Your task to perform on an android device: turn on bluetooth scan Image 0: 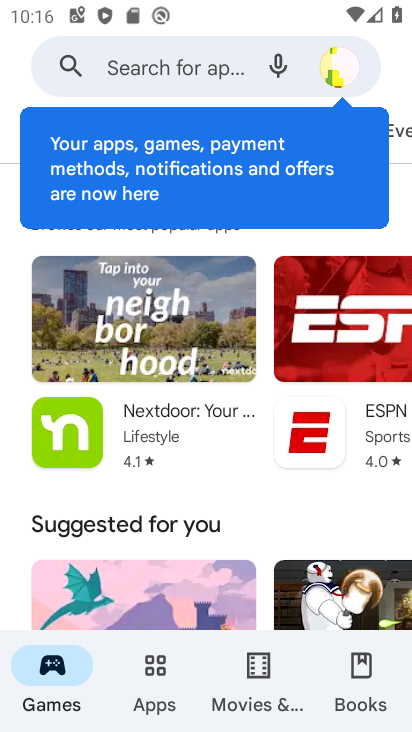
Step 0: press home button
Your task to perform on an android device: turn on bluetooth scan Image 1: 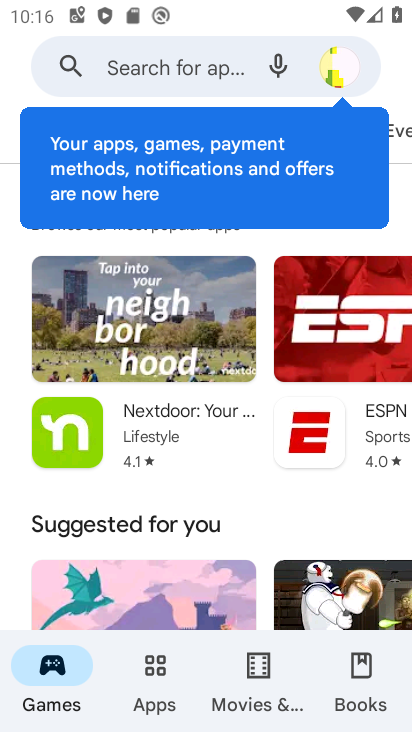
Step 1: press home button
Your task to perform on an android device: turn on bluetooth scan Image 2: 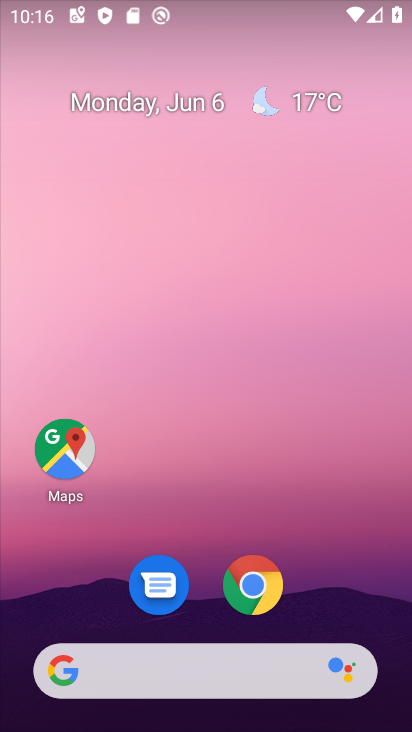
Step 2: drag from (213, 486) to (206, 135)
Your task to perform on an android device: turn on bluetooth scan Image 3: 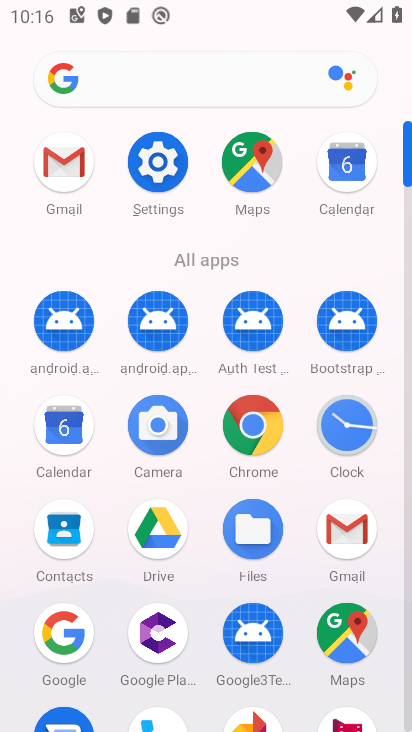
Step 3: click (154, 171)
Your task to perform on an android device: turn on bluetooth scan Image 4: 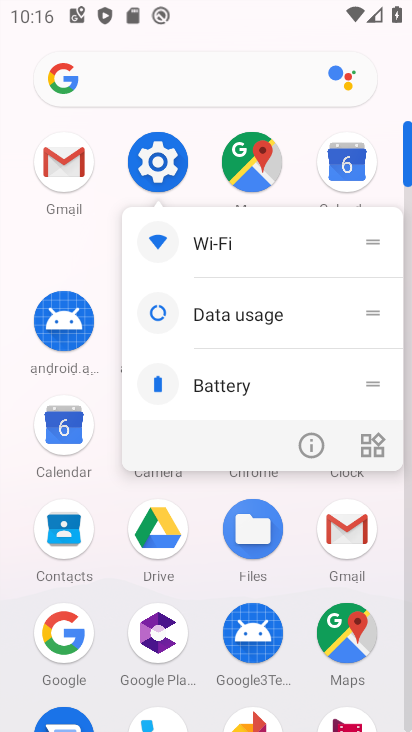
Step 4: click (158, 160)
Your task to perform on an android device: turn on bluetooth scan Image 5: 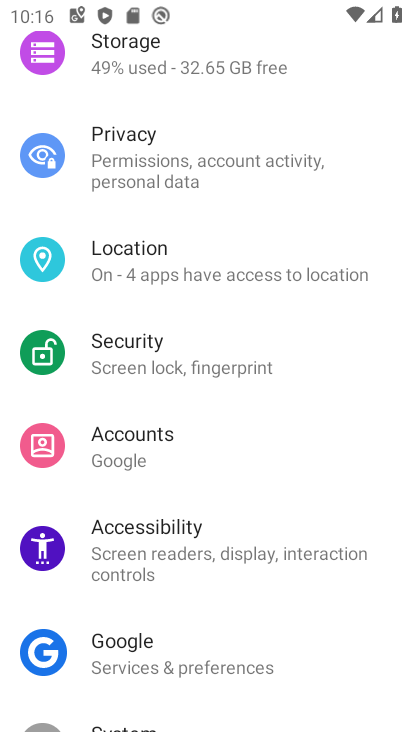
Step 5: click (196, 255)
Your task to perform on an android device: turn on bluetooth scan Image 6: 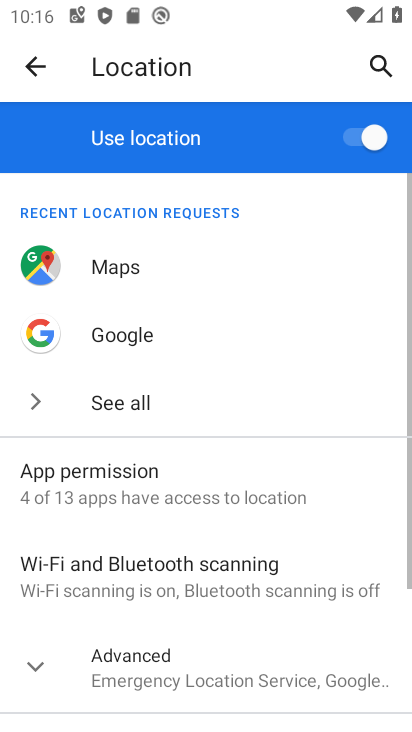
Step 6: click (236, 567)
Your task to perform on an android device: turn on bluetooth scan Image 7: 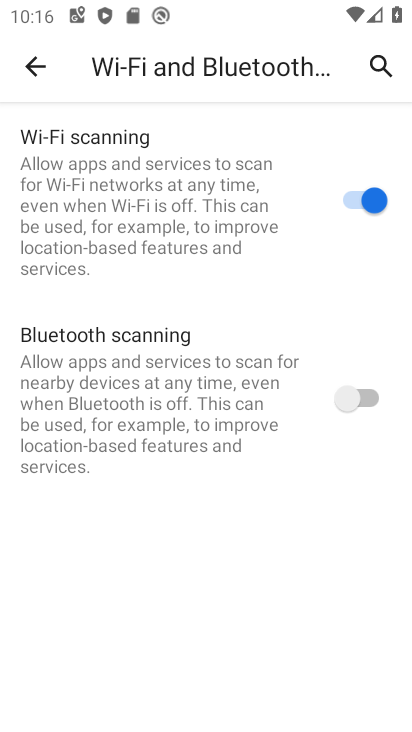
Step 7: click (358, 385)
Your task to perform on an android device: turn on bluetooth scan Image 8: 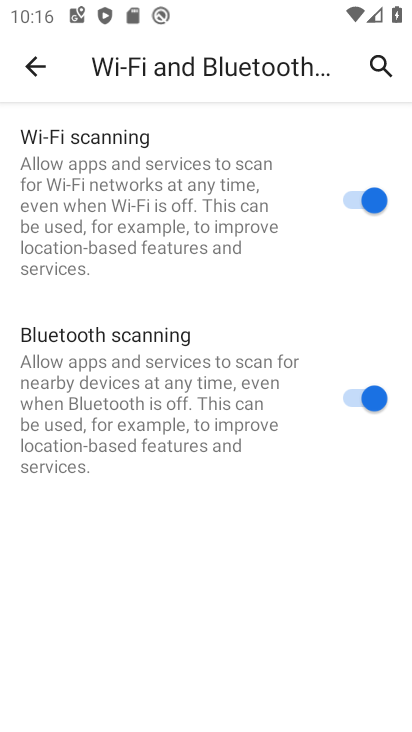
Step 8: task complete